Your task to perform on an android device: turn on notifications settings in the gmail app Image 0: 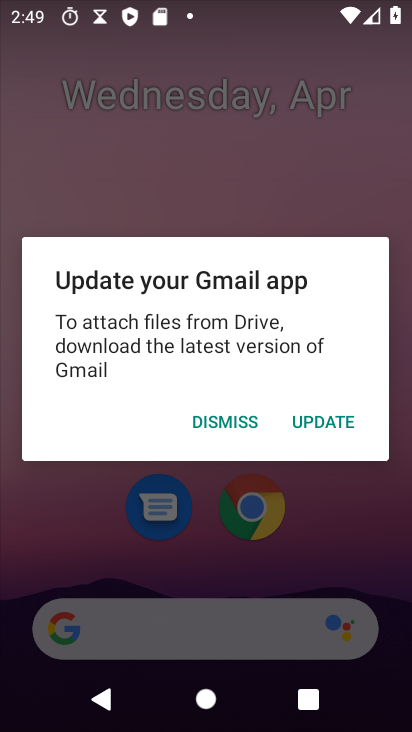
Step 0: press home button
Your task to perform on an android device: turn on notifications settings in the gmail app Image 1: 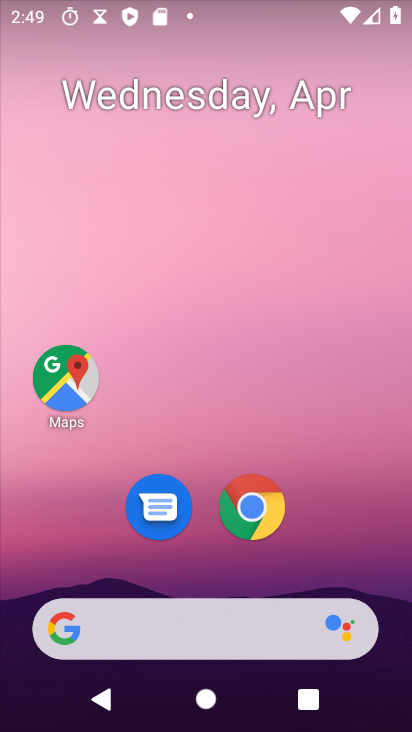
Step 1: drag from (342, 555) to (40, 98)
Your task to perform on an android device: turn on notifications settings in the gmail app Image 2: 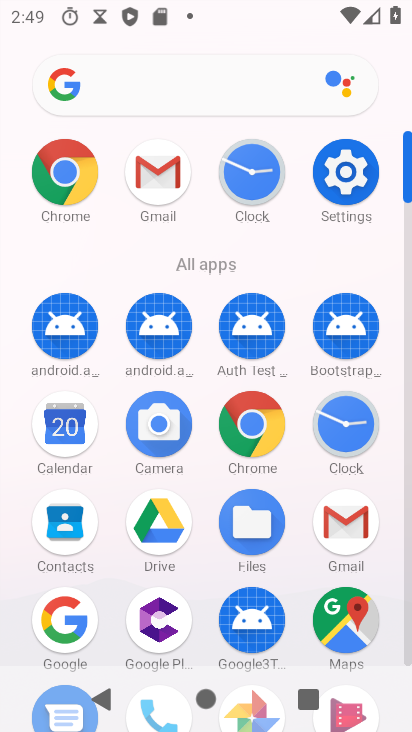
Step 2: click (354, 525)
Your task to perform on an android device: turn on notifications settings in the gmail app Image 3: 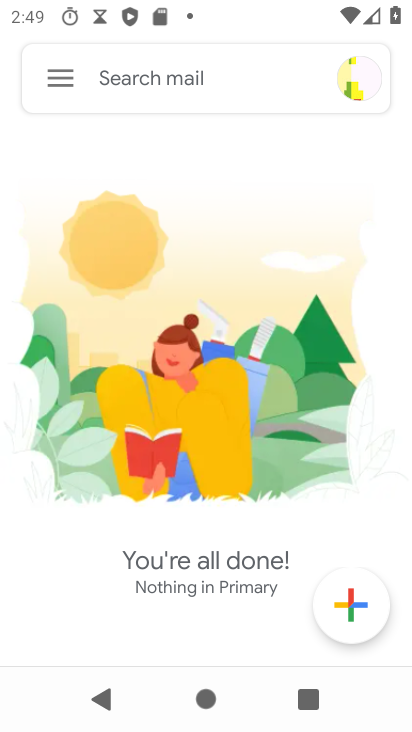
Step 3: click (49, 85)
Your task to perform on an android device: turn on notifications settings in the gmail app Image 4: 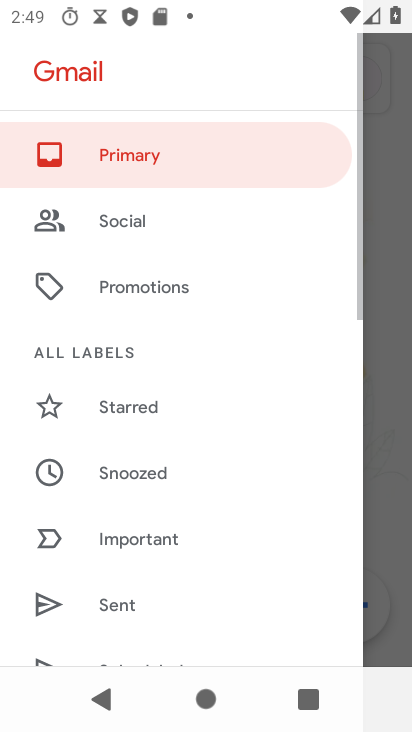
Step 4: drag from (156, 535) to (101, 126)
Your task to perform on an android device: turn on notifications settings in the gmail app Image 5: 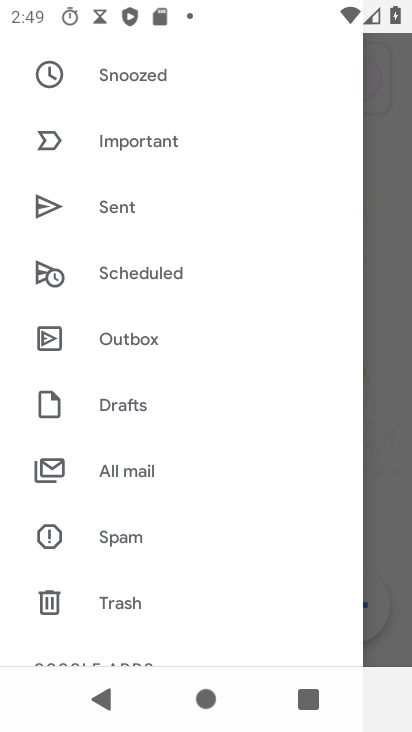
Step 5: drag from (115, 618) to (106, 161)
Your task to perform on an android device: turn on notifications settings in the gmail app Image 6: 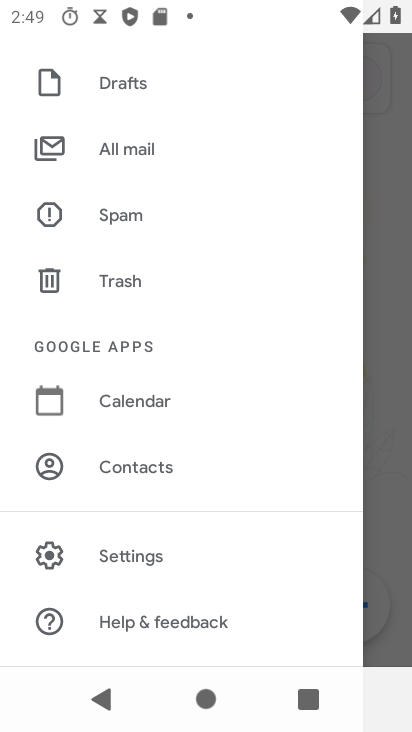
Step 6: click (133, 556)
Your task to perform on an android device: turn on notifications settings in the gmail app Image 7: 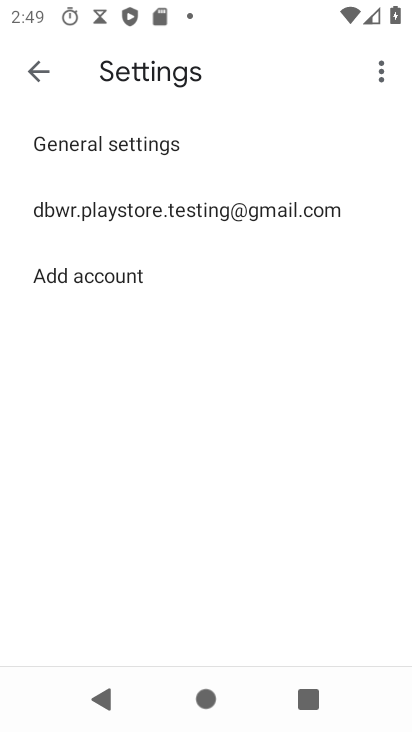
Step 7: click (225, 212)
Your task to perform on an android device: turn on notifications settings in the gmail app Image 8: 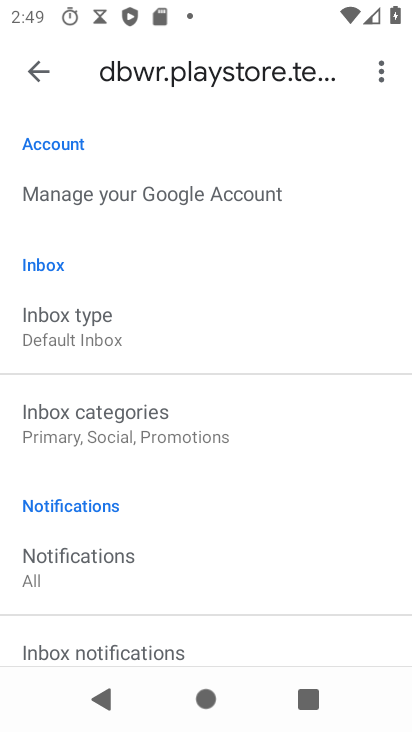
Step 8: drag from (99, 612) to (114, 193)
Your task to perform on an android device: turn on notifications settings in the gmail app Image 9: 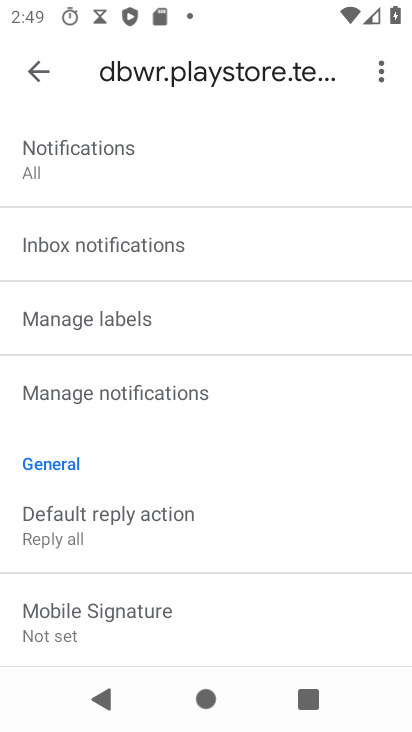
Step 9: click (110, 389)
Your task to perform on an android device: turn on notifications settings in the gmail app Image 10: 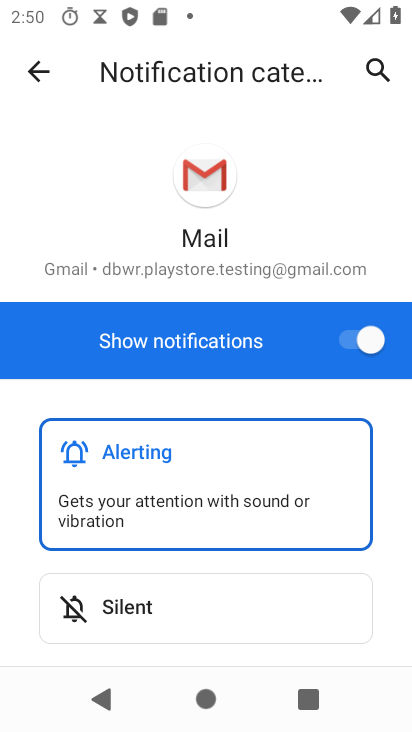
Step 10: task complete